Your task to perform on an android device: Open Google Chrome and open the bookmarks view Image 0: 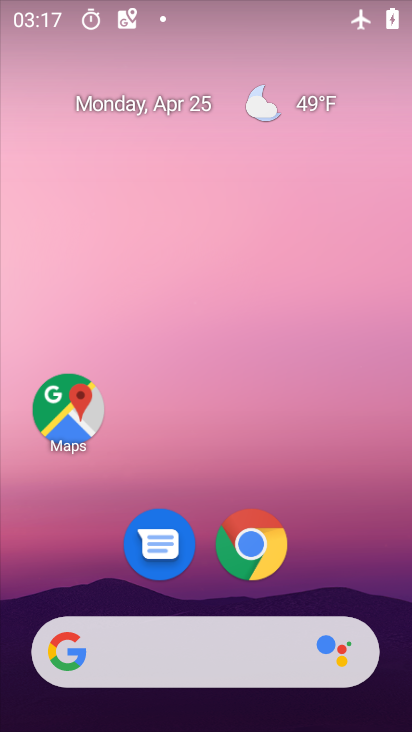
Step 0: click (252, 544)
Your task to perform on an android device: Open Google Chrome and open the bookmarks view Image 1: 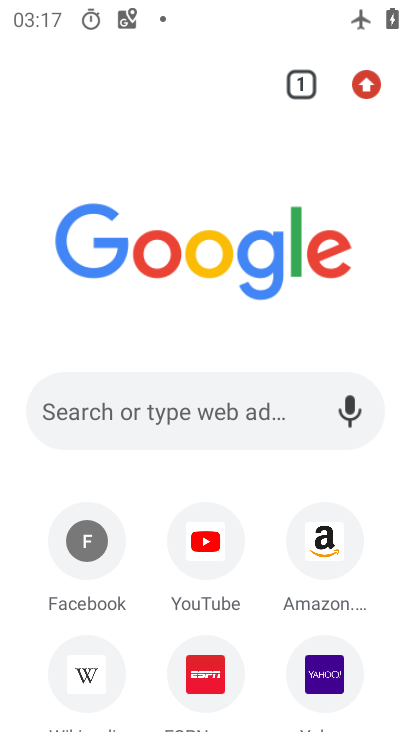
Step 1: click (368, 82)
Your task to perform on an android device: Open Google Chrome and open the bookmarks view Image 2: 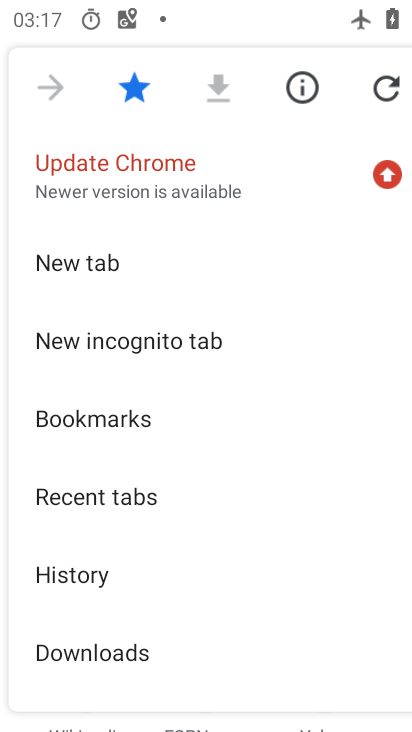
Step 2: click (130, 422)
Your task to perform on an android device: Open Google Chrome and open the bookmarks view Image 3: 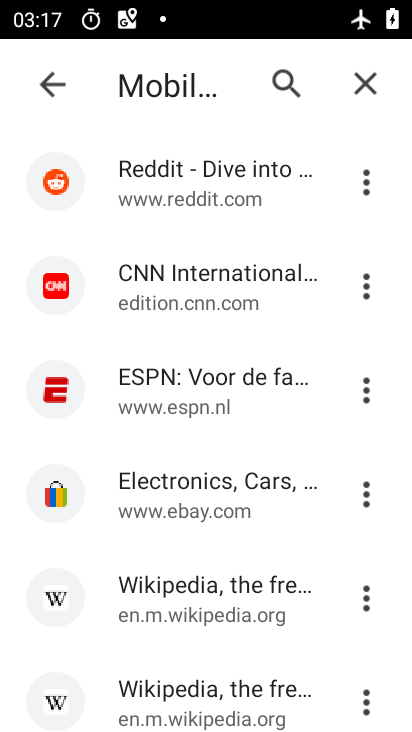
Step 3: drag from (138, 596) to (185, 448)
Your task to perform on an android device: Open Google Chrome and open the bookmarks view Image 4: 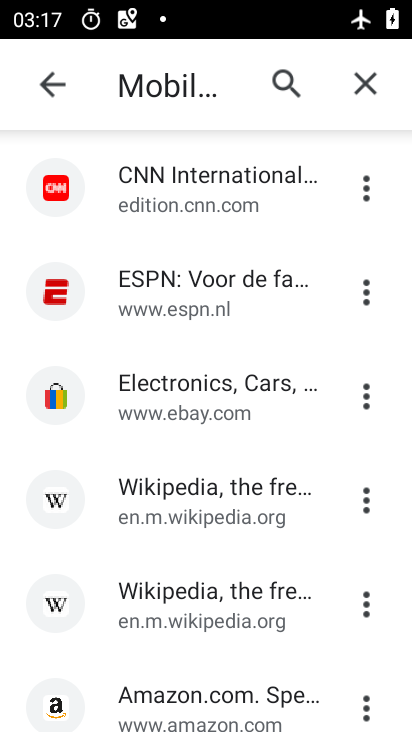
Step 4: click (156, 479)
Your task to perform on an android device: Open Google Chrome and open the bookmarks view Image 5: 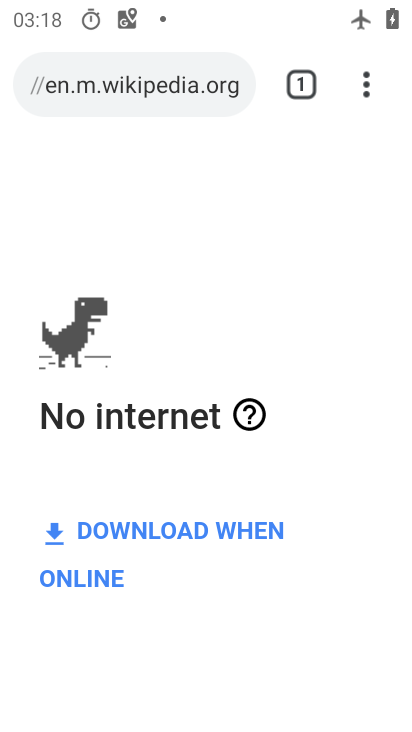
Step 5: task complete